Your task to perform on an android device: Go to location settings Image 0: 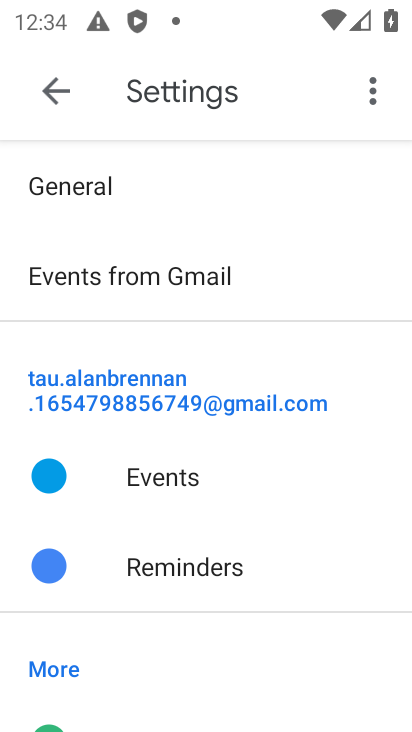
Step 0: press home button
Your task to perform on an android device: Go to location settings Image 1: 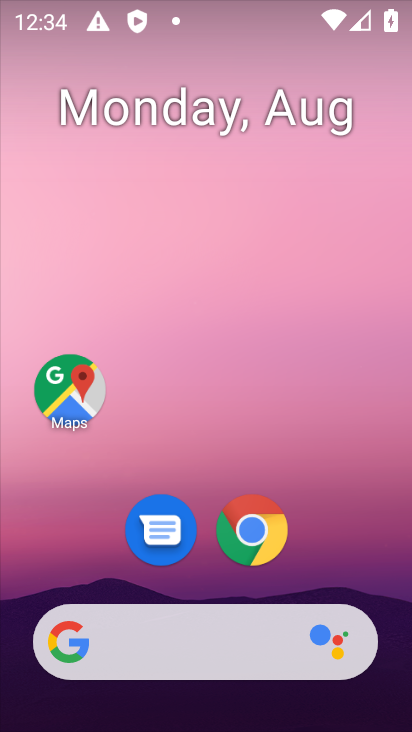
Step 1: drag from (210, 583) to (176, 65)
Your task to perform on an android device: Go to location settings Image 2: 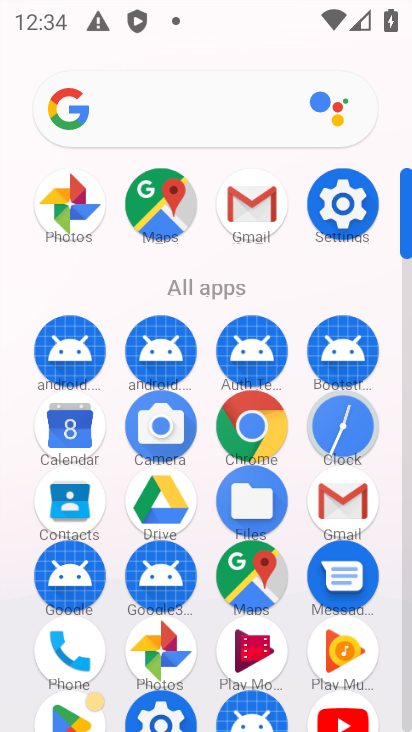
Step 2: click (342, 203)
Your task to perform on an android device: Go to location settings Image 3: 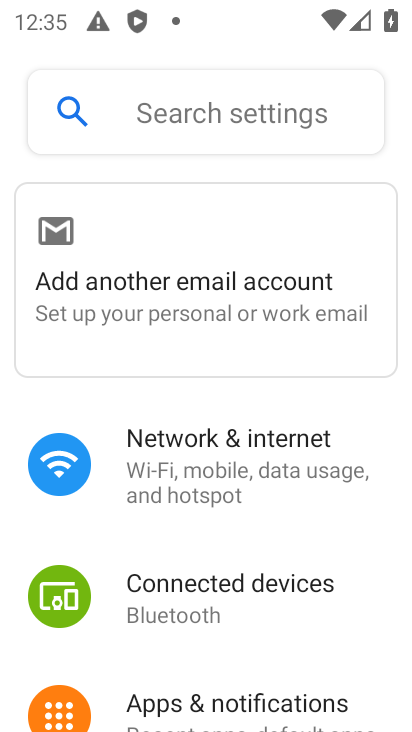
Step 3: drag from (168, 660) to (166, 285)
Your task to perform on an android device: Go to location settings Image 4: 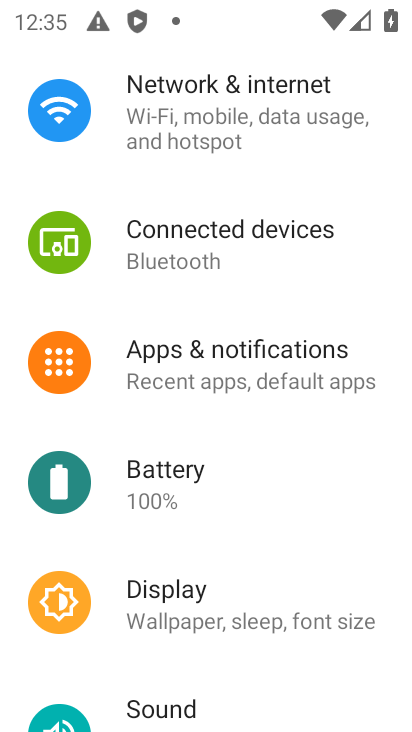
Step 4: drag from (166, 671) to (162, 248)
Your task to perform on an android device: Go to location settings Image 5: 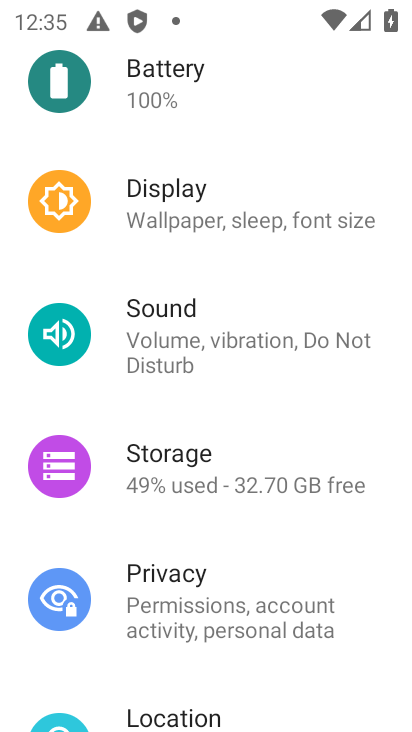
Step 5: drag from (180, 647) to (159, 263)
Your task to perform on an android device: Go to location settings Image 6: 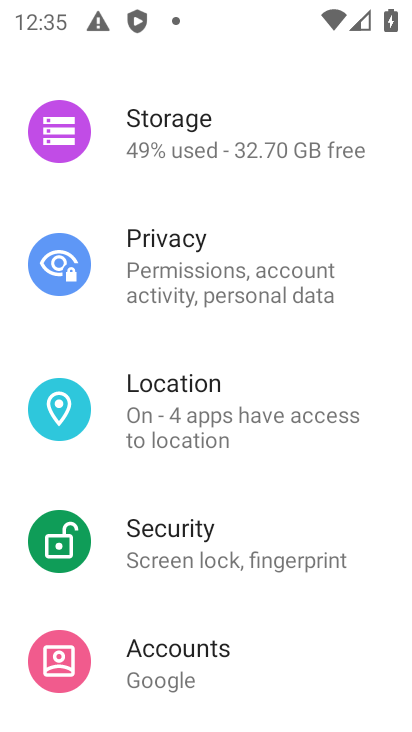
Step 6: click (166, 397)
Your task to perform on an android device: Go to location settings Image 7: 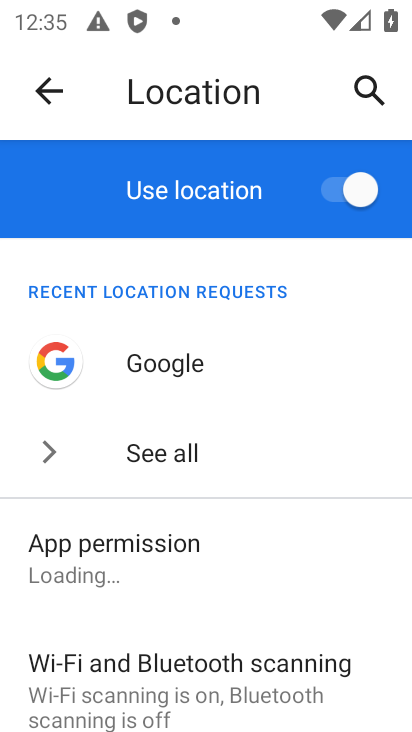
Step 7: task complete